Your task to perform on an android device: change timer sound Image 0: 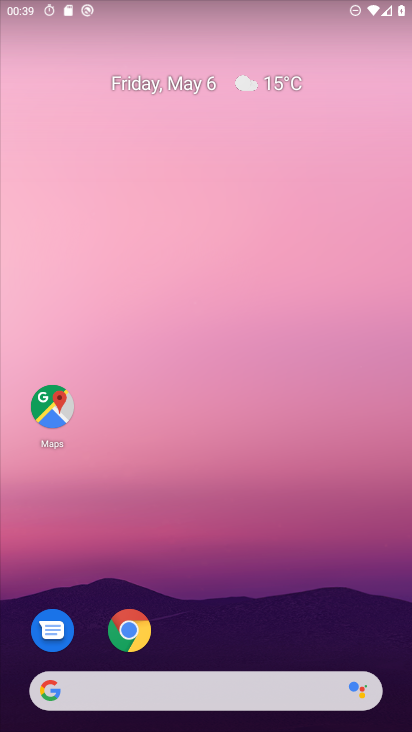
Step 0: drag from (266, 604) to (273, 214)
Your task to perform on an android device: change timer sound Image 1: 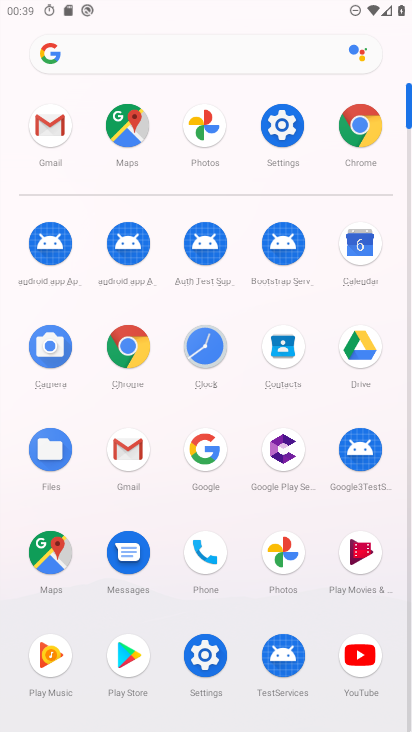
Step 1: click (216, 348)
Your task to perform on an android device: change timer sound Image 2: 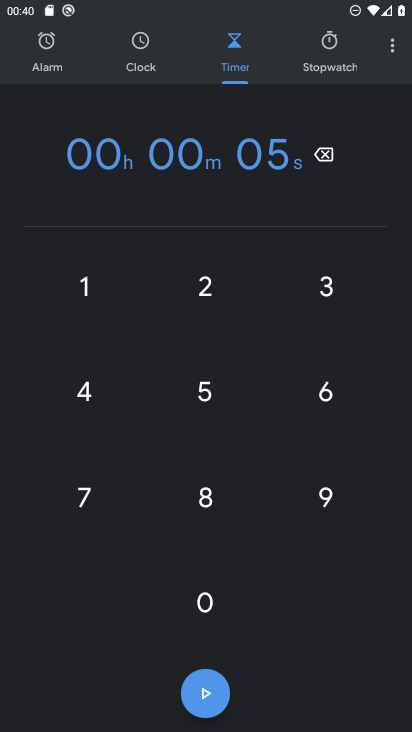
Step 2: click (388, 39)
Your task to perform on an android device: change timer sound Image 3: 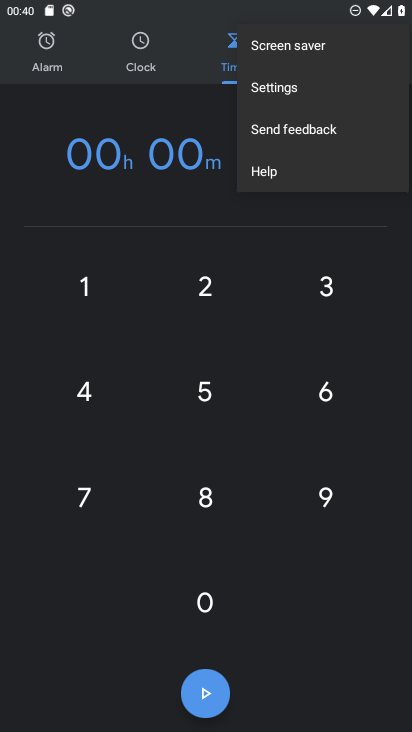
Step 3: click (290, 99)
Your task to perform on an android device: change timer sound Image 4: 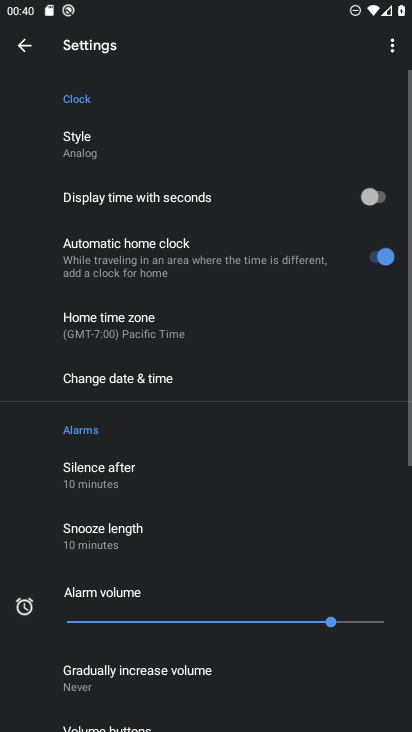
Step 4: drag from (243, 512) to (293, 128)
Your task to perform on an android device: change timer sound Image 5: 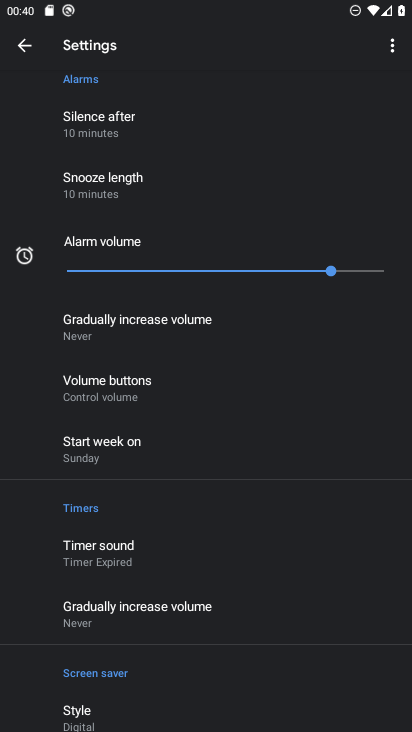
Step 5: click (121, 543)
Your task to perform on an android device: change timer sound Image 6: 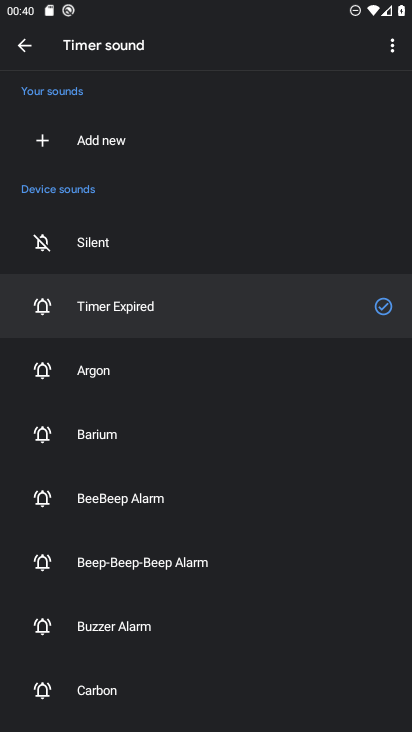
Step 6: click (115, 359)
Your task to perform on an android device: change timer sound Image 7: 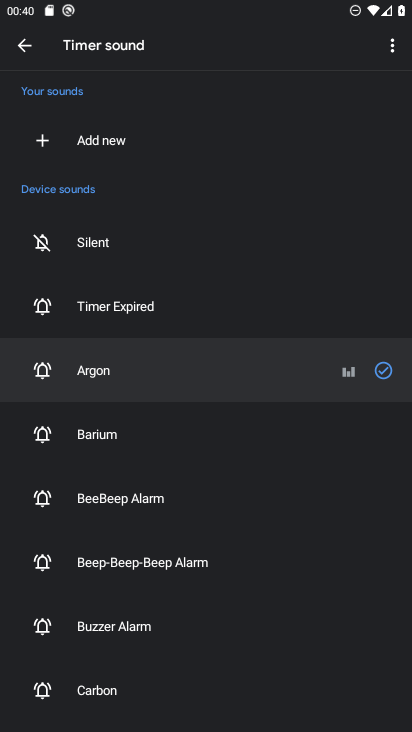
Step 7: task complete